Your task to perform on an android device: Open privacy settings Image 0: 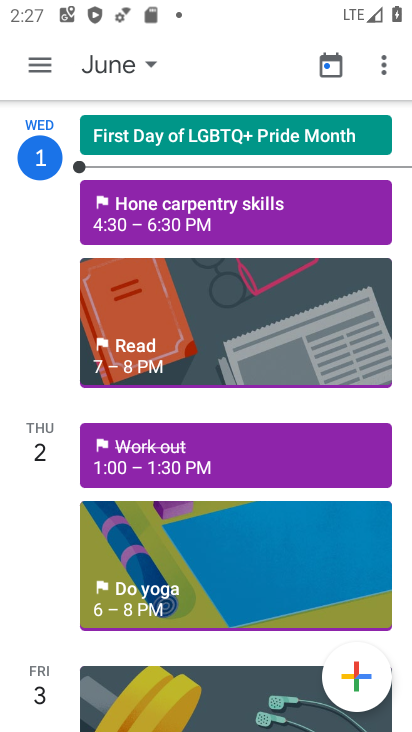
Step 0: press home button
Your task to perform on an android device: Open privacy settings Image 1: 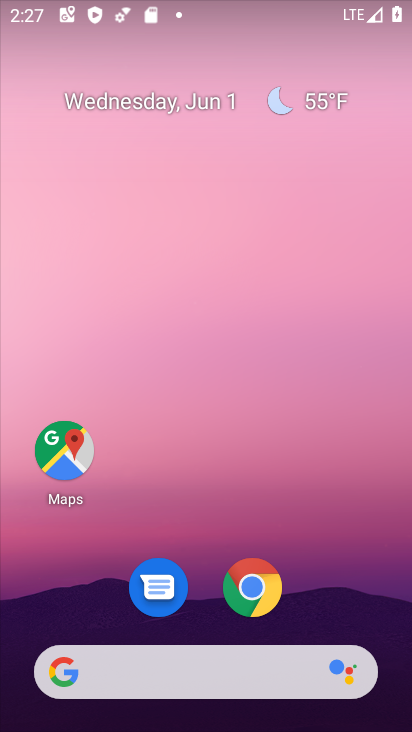
Step 1: drag from (234, 674) to (212, 146)
Your task to perform on an android device: Open privacy settings Image 2: 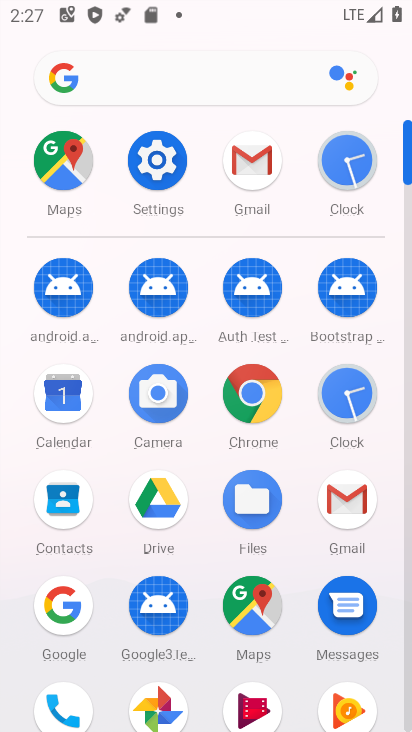
Step 2: click (172, 163)
Your task to perform on an android device: Open privacy settings Image 3: 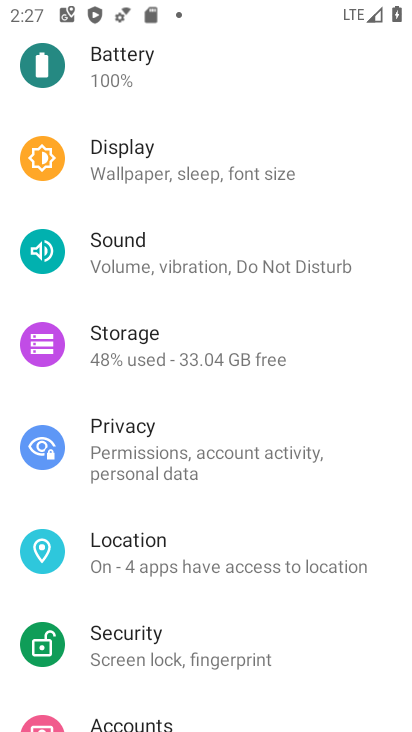
Step 3: click (176, 460)
Your task to perform on an android device: Open privacy settings Image 4: 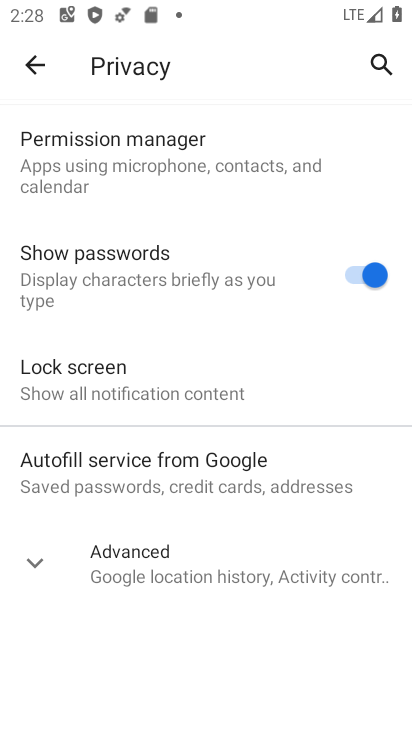
Step 4: task complete